Your task to perform on an android device: open sync settings in chrome Image 0: 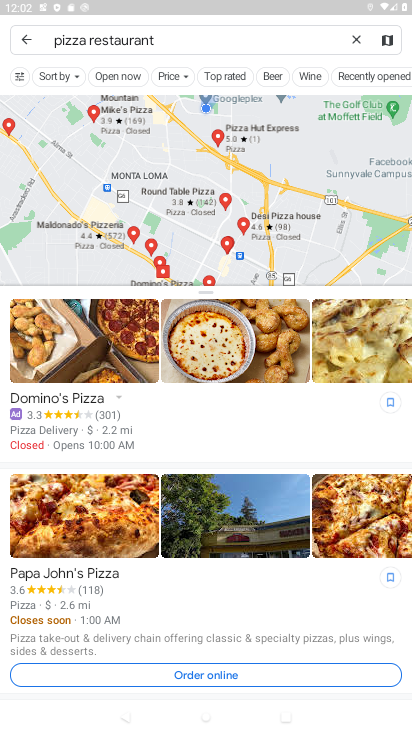
Step 0: press home button
Your task to perform on an android device: open sync settings in chrome Image 1: 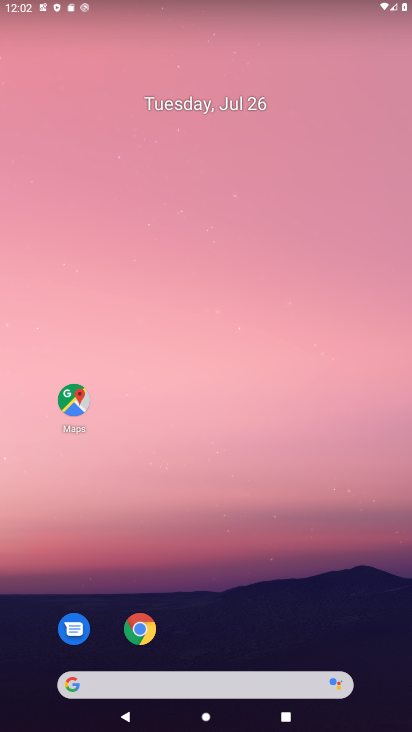
Step 1: click (151, 635)
Your task to perform on an android device: open sync settings in chrome Image 2: 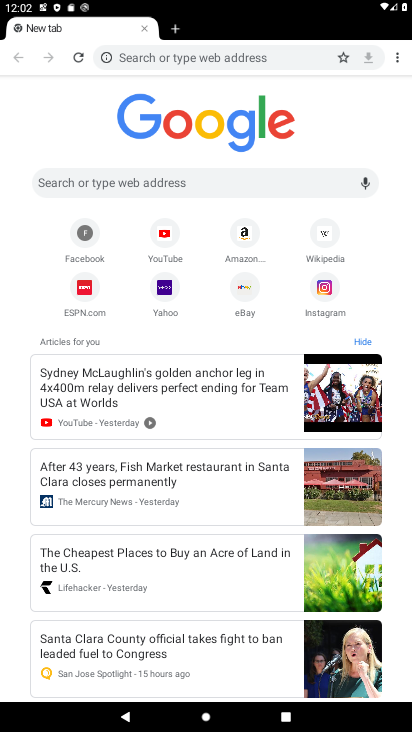
Step 2: click (396, 57)
Your task to perform on an android device: open sync settings in chrome Image 3: 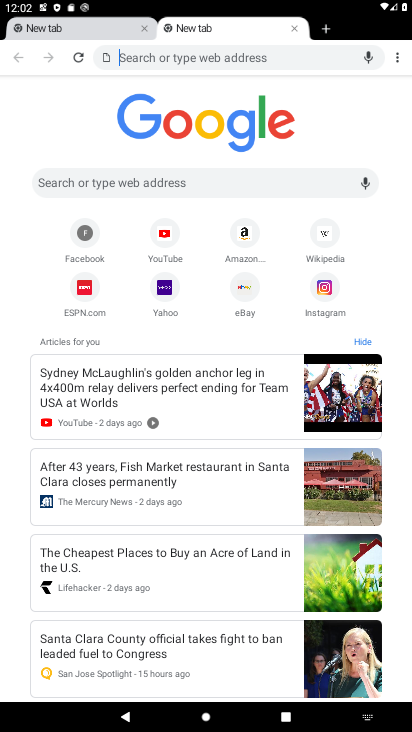
Step 3: click (401, 66)
Your task to perform on an android device: open sync settings in chrome Image 4: 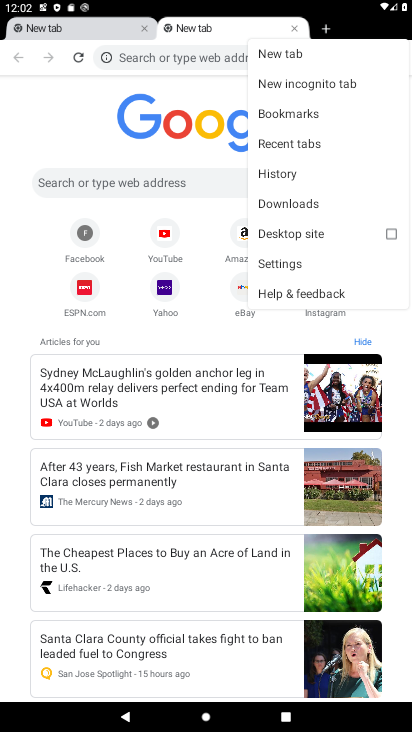
Step 4: click (307, 261)
Your task to perform on an android device: open sync settings in chrome Image 5: 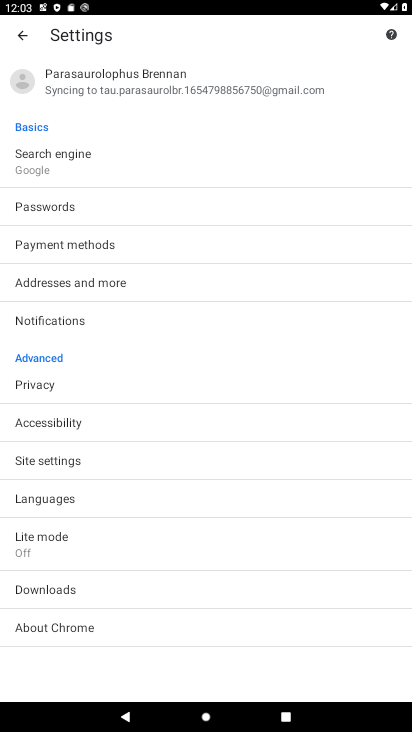
Step 5: click (135, 94)
Your task to perform on an android device: open sync settings in chrome Image 6: 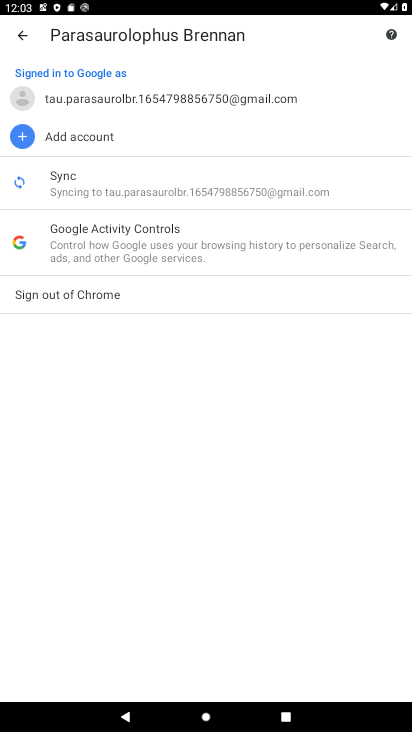
Step 6: click (169, 173)
Your task to perform on an android device: open sync settings in chrome Image 7: 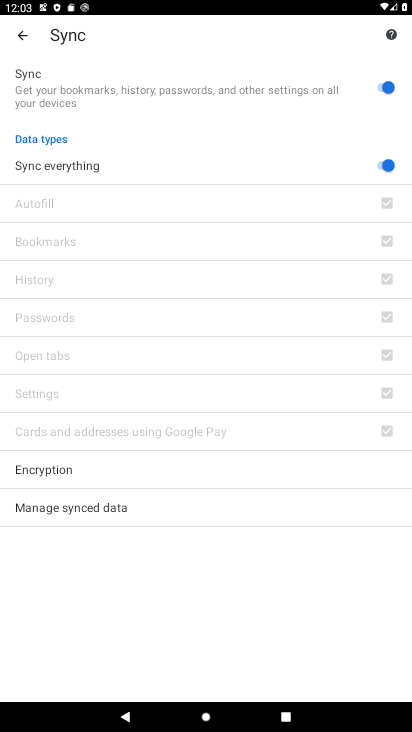
Step 7: task complete